Your task to perform on an android device: remove spam from my inbox in the gmail app Image 0: 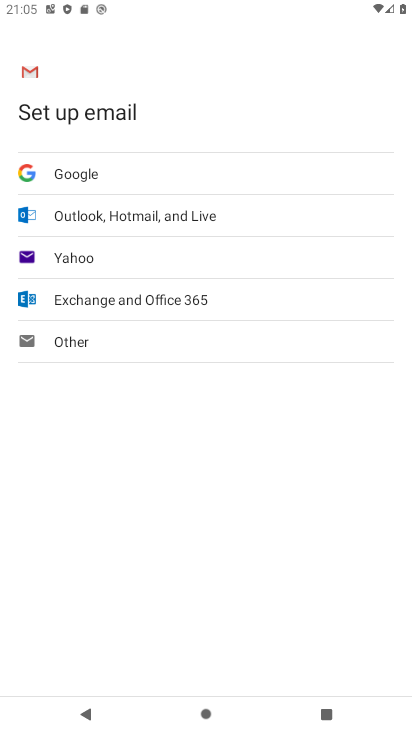
Step 0: press home button
Your task to perform on an android device: remove spam from my inbox in the gmail app Image 1: 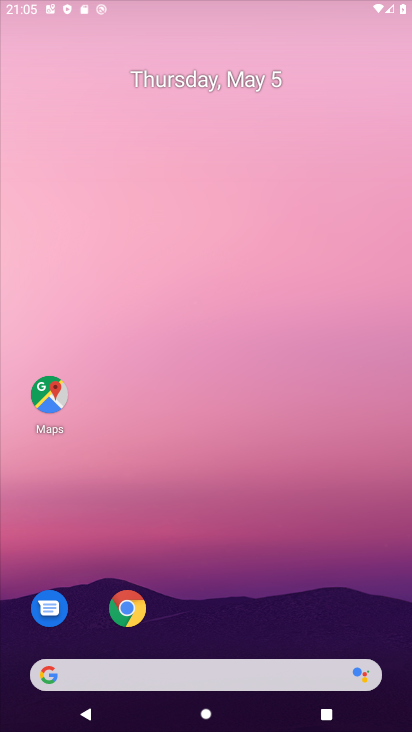
Step 1: drag from (274, 653) to (258, 22)
Your task to perform on an android device: remove spam from my inbox in the gmail app Image 2: 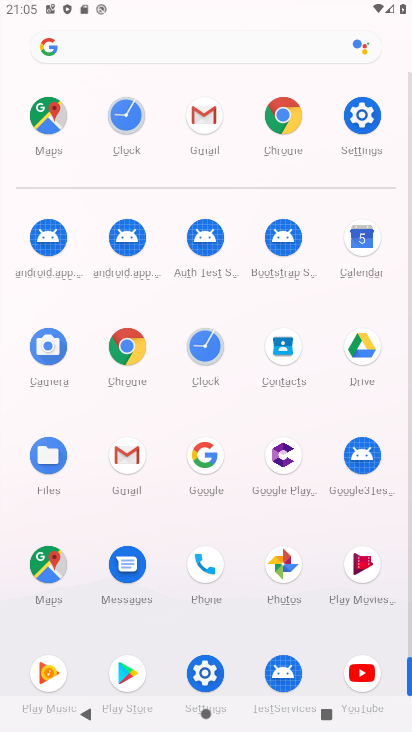
Step 2: click (123, 455)
Your task to perform on an android device: remove spam from my inbox in the gmail app Image 3: 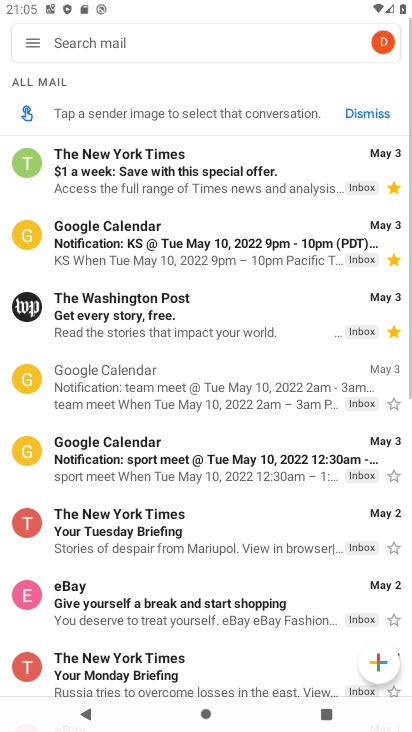
Step 3: drag from (30, 38) to (146, 346)
Your task to perform on an android device: remove spam from my inbox in the gmail app Image 4: 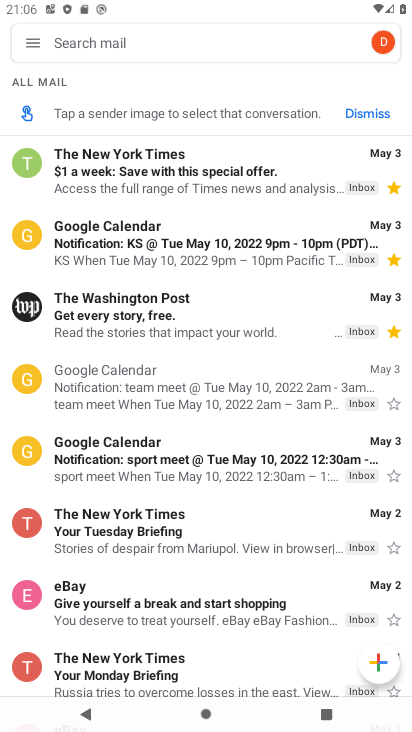
Step 4: click (28, 42)
Your task to perform on an android device: remove spam from my inbox in the gmail app Image 5: 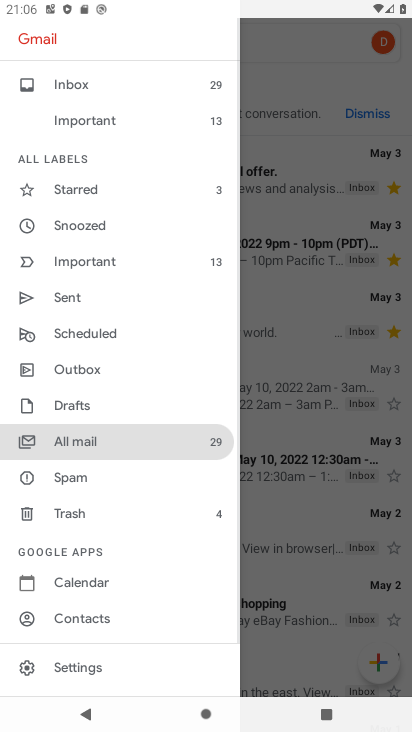
Step 5: click (121, 476)
Your task to perform on an android device: remove spam from my inbox in the gmail app Image 6: 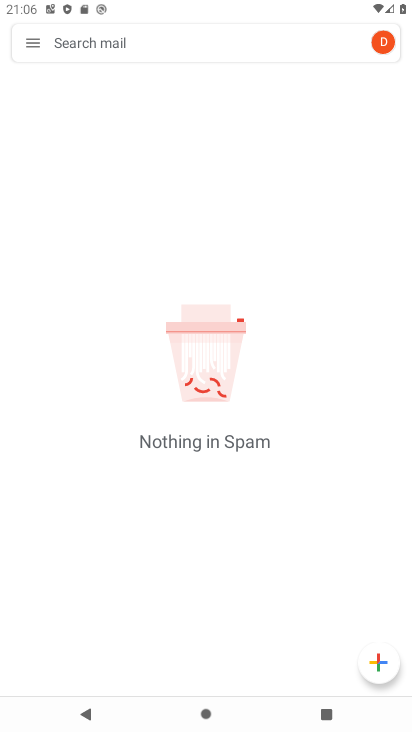
Step 6: task complete